Your task to perform on an android device: turn off notifications settings in the gmail app Image 0: 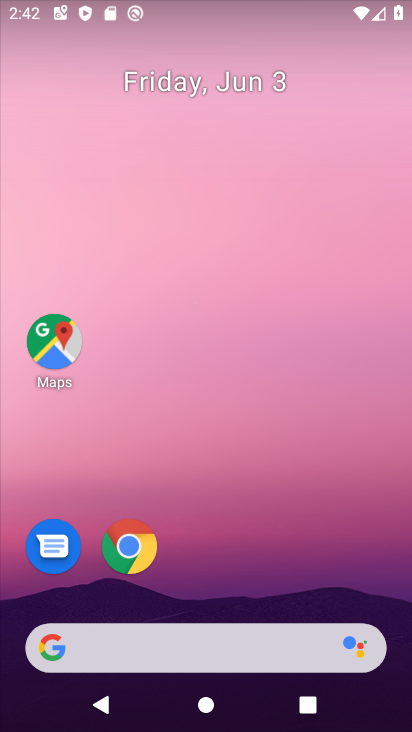
Step 0: drag from (276, 593) to (255, 1)
Your task to perform on an android device: turn off notifications settings in the gmail app Image 1: 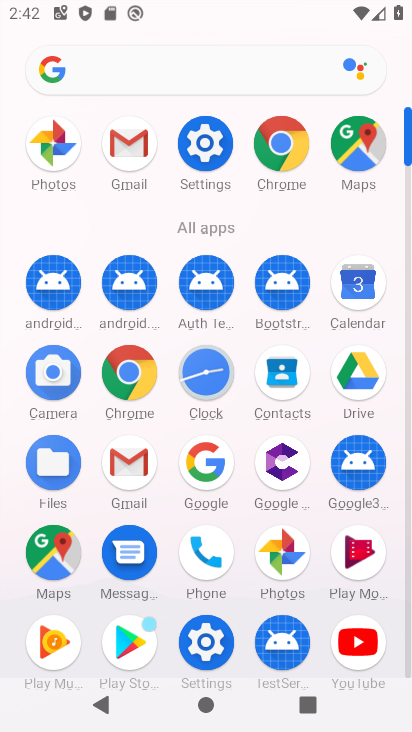
Step 1: click (125, 142)
Your task to perform on an android device: turn off notifications settings in the gmail app Image 2: 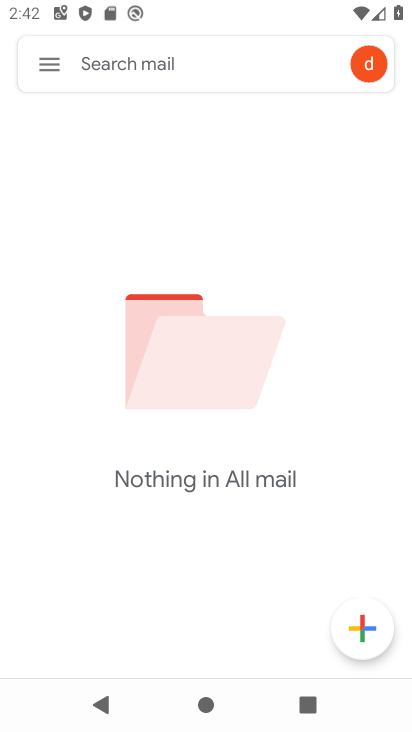
Step 2: click (57, 72)
Your task to perform on an android device: turn off notifications settings in the gmail app Image 3: 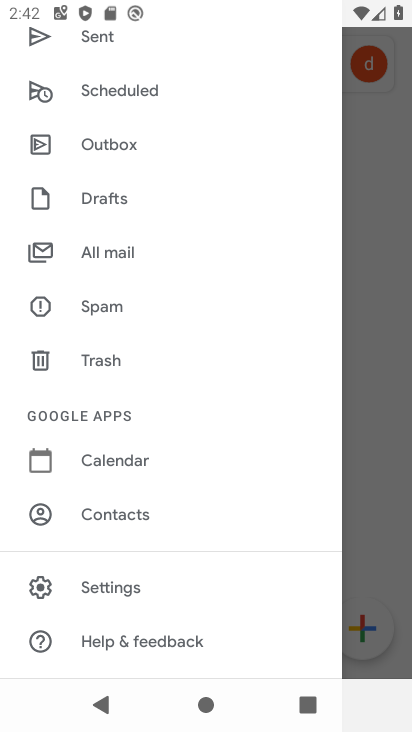
Step 3: click (116, 588)
Your task to perform on an android device: turn off notifications settings in the gmail app Image 4: 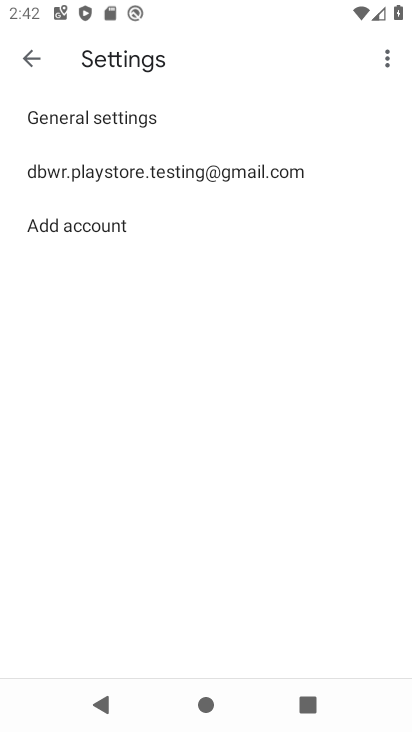
Step 4: click (223, 179)
Your task to perform on an android device: turn off notifications settings in the gmail app Image 5: 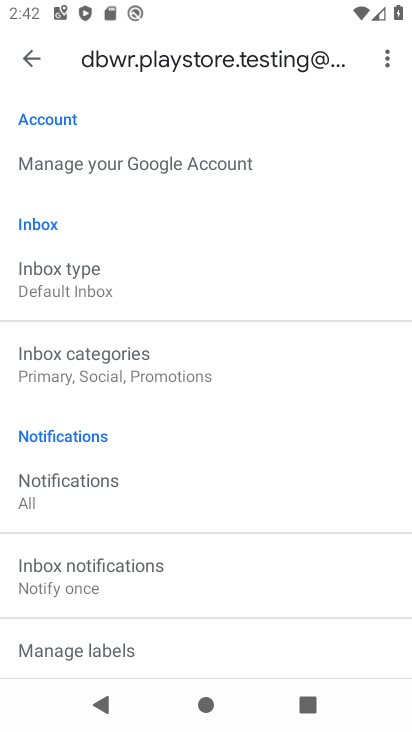
Step 5: drag from (109, 625) to (159, 220)
Your task to perform on an android device: turn off notifications settings in the gmail app Image 6: 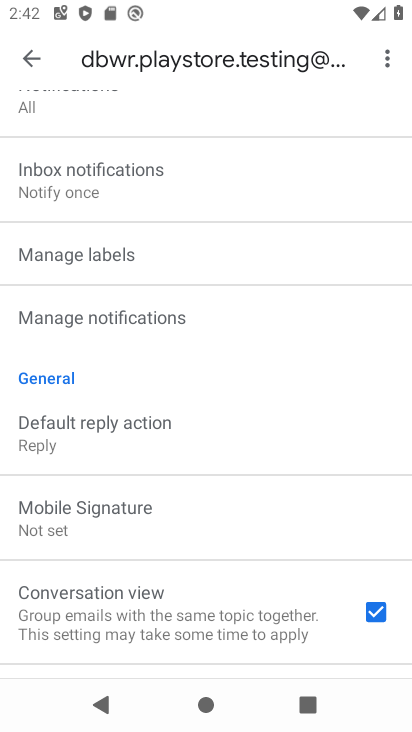
Step 6: click (123, 325)
Your task to perform on an android device: turn off notifications settings in the gmail app Image 7: 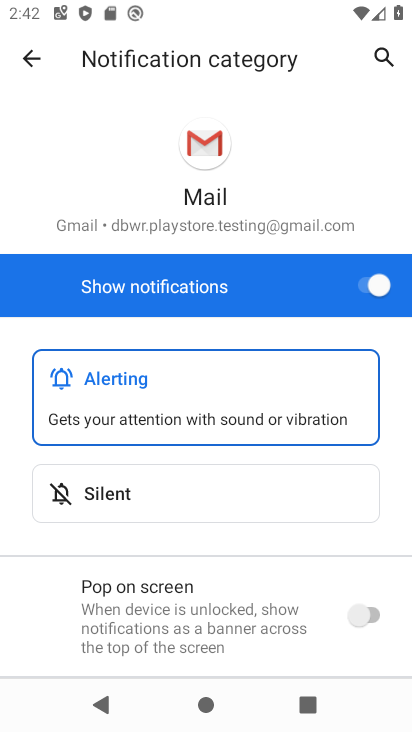
Step 7: click (383, 298)
Your task to perform on an android device: turn off notifications settings in the gmail app Image 8: 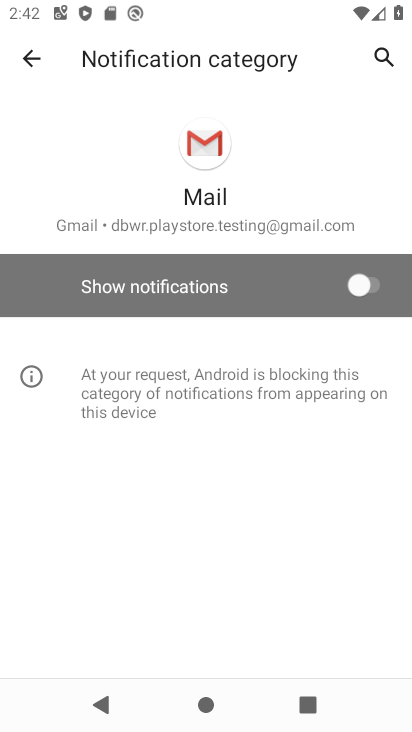
Step 8: task complete